Your task to perform on an android device: Open Wikipedia Image 0: 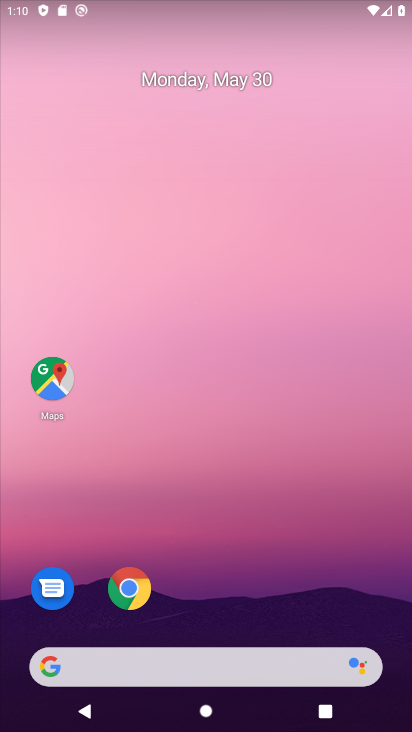
Step 0: click (123, 587)
Your task to perform on an android device: Open Wikipedia Image 1: 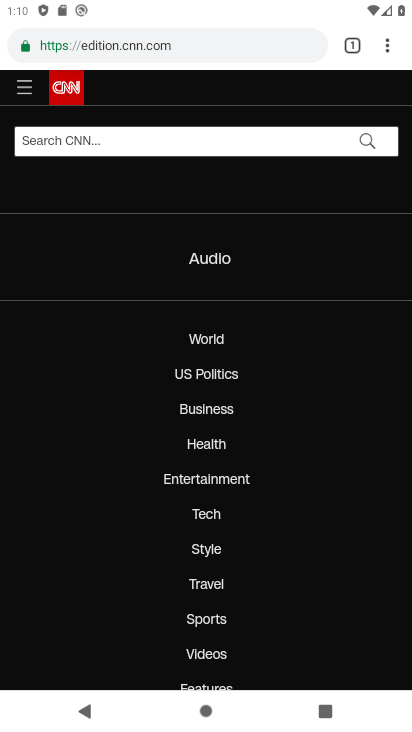
Step 1: click (175, 43)
Your task to perform on an android device: Open Wikipedia Image 2: 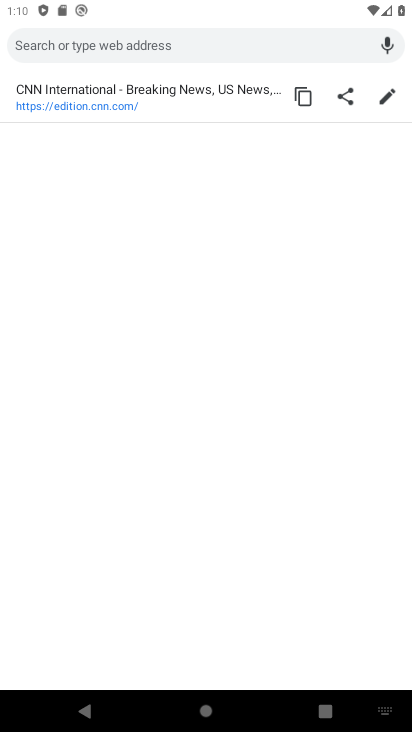
Step 2: type "wikipedia"
Your task to perform on an android device: Open Wikipedia Image 3: 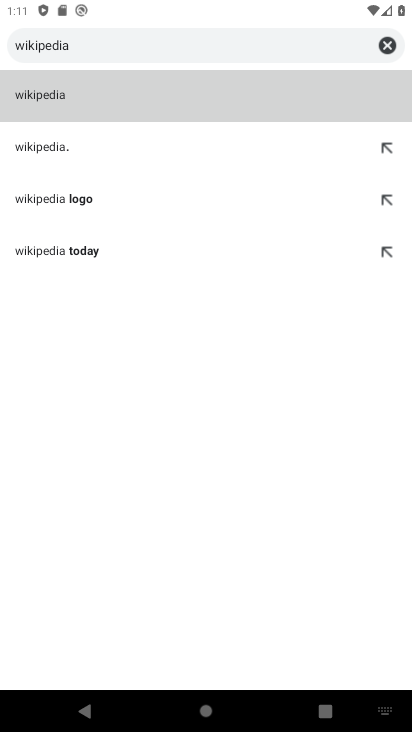
Step 3: click (30, 95)
Your task to perform on an android device: Open Wikipedia Image 4: 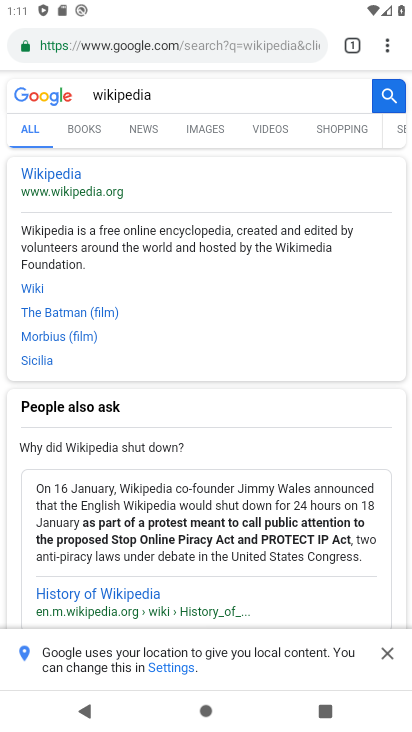
Step 4: click (43, 182)
Your task to perform on an android device: Open Wikipedia Image 5: 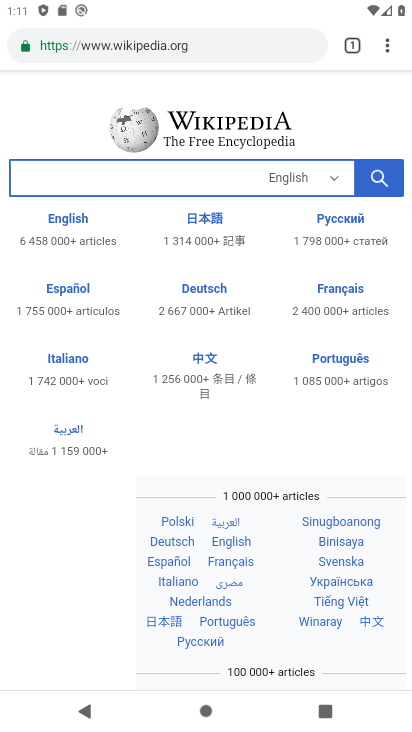
Step 5: task complete